Your task to perform on an android device: What's the weather? Image 0: 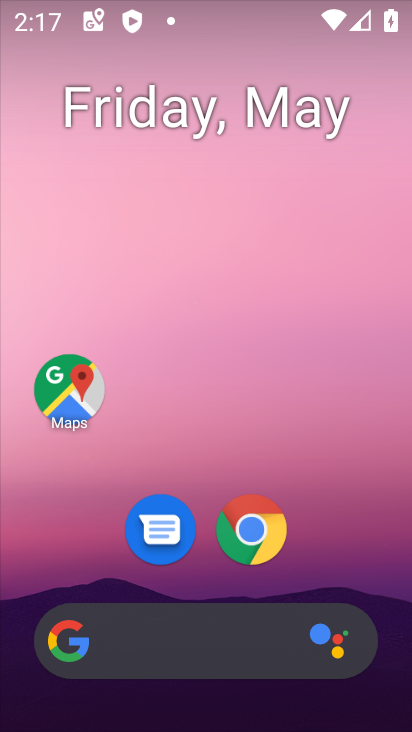
Step 0: click (256, 654)
Your task to perform on an android device: What's the weather? Image 1: 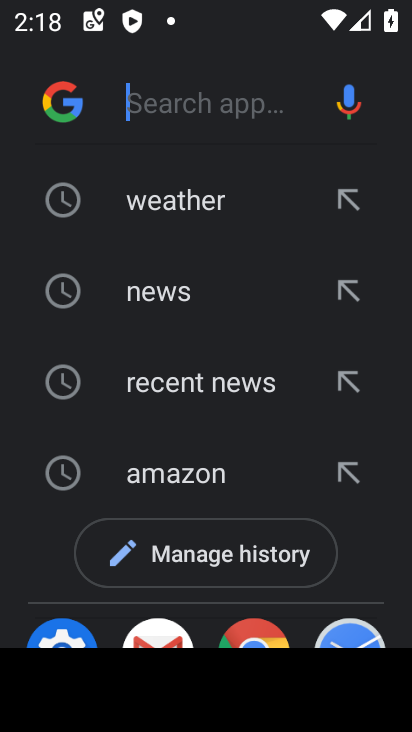
Step 1: click (197, 192)
Your task to perform on an android device: What's the weather? Image 2: 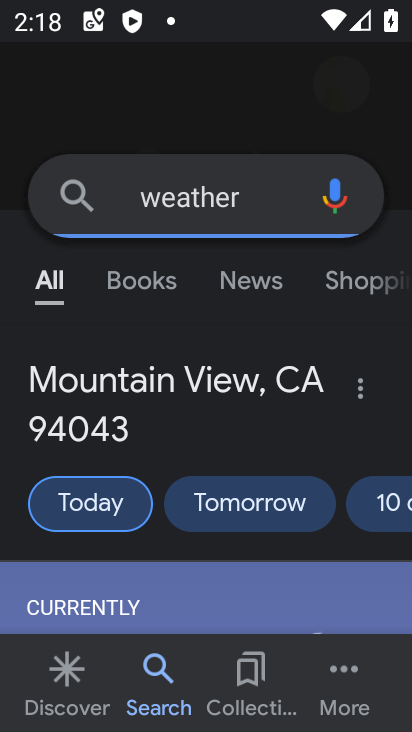
Step 2: task complete